Your task to perform on an android device: Show me recent news Image 0: 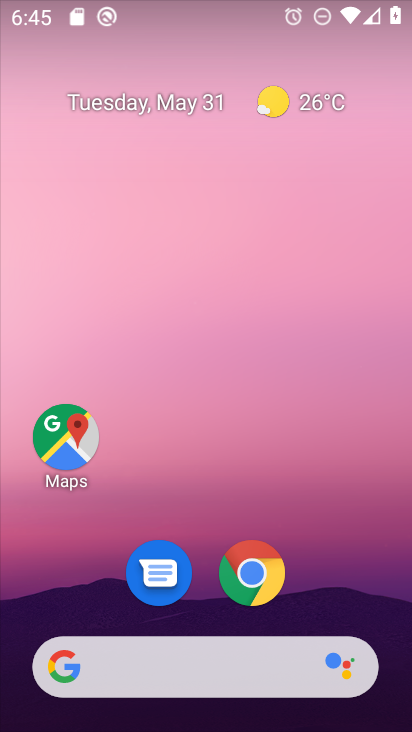
Step 0: drag from (324, 293) to (245, 76)
Your task to perform on an android device: Show me recent news Image 1: 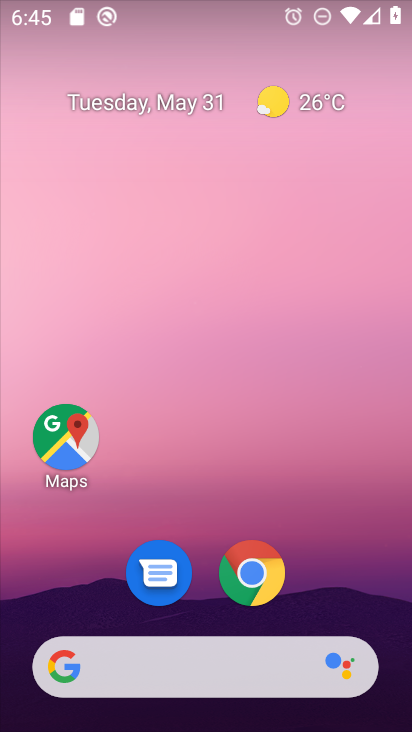
Step 1: drag from (378, 717) to (297, 15)
Your task to perform on an android device: Show me recent news Image 2: 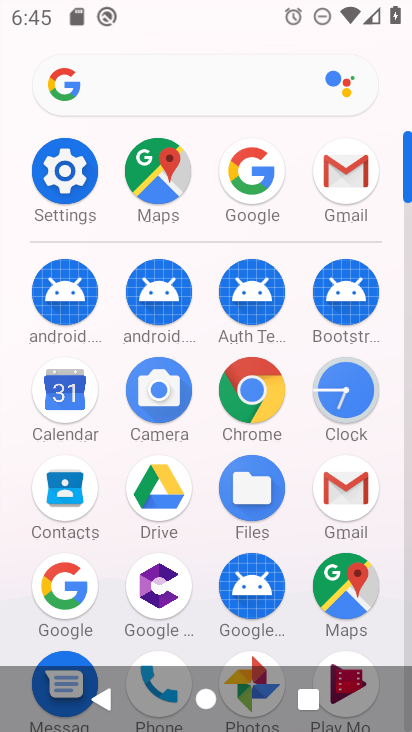
Step 2: click (30, 575)
Your task to perform on an android device: Show me recent news Image 3: 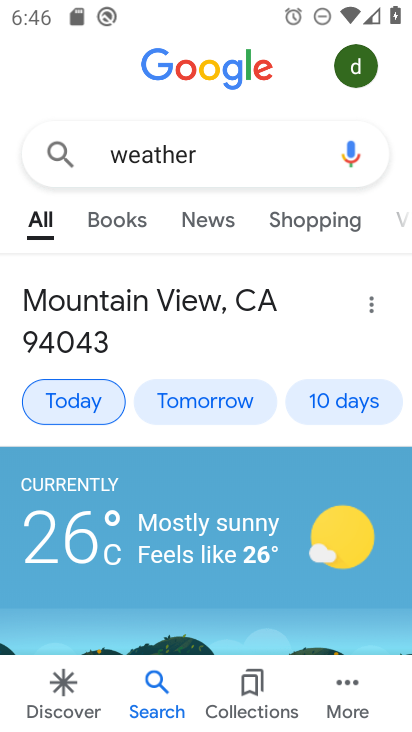
Step 3: press back button
Your task to perform on an android device: Show me recent news Image 4: 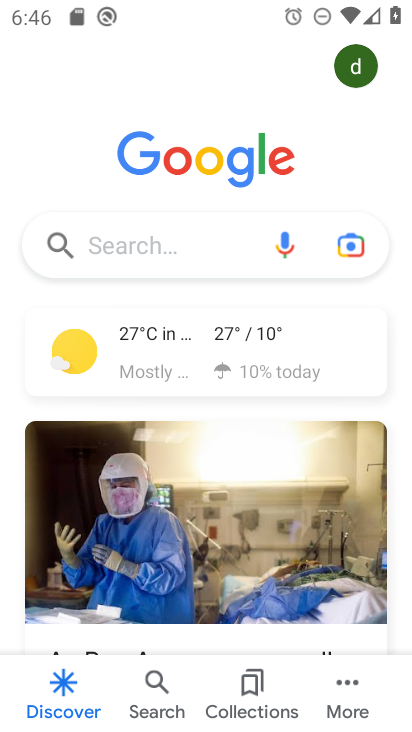
Step 4: click (161, 220)
Your task to perform on an android device: Show me recent news Image 5: 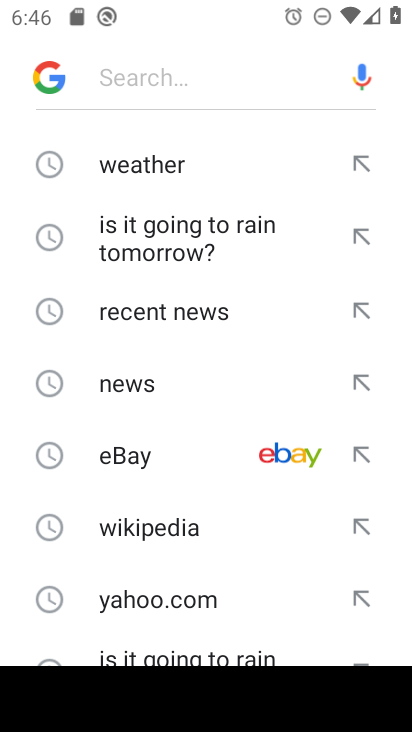
Step 5: click (195, 327)
Your task to perform on an android device: Show me recent news Image 6: 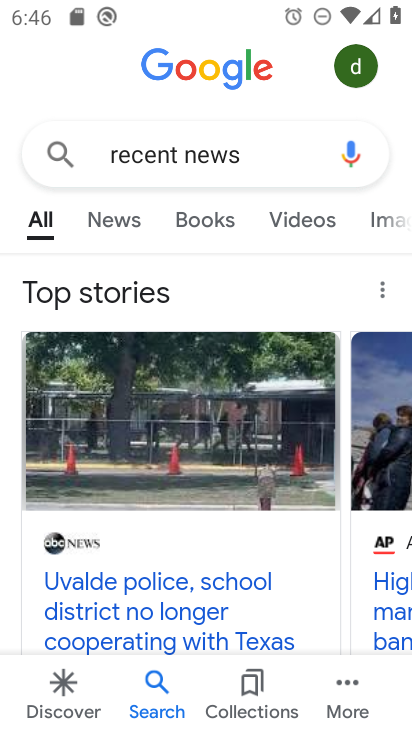
Step 6: task complete